Your task to perform on an android device: toggle improve location accuracy Image 0: 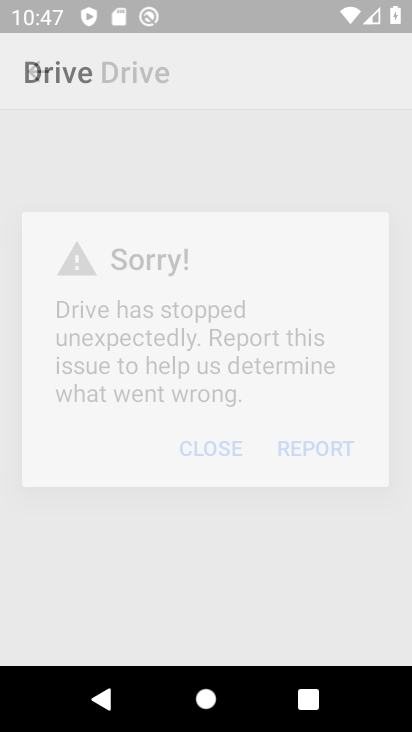
Step 0: drag from (355, 516) to (355, 64)
Your task to perform on an android device: toggle improve location accuracy Image 1: 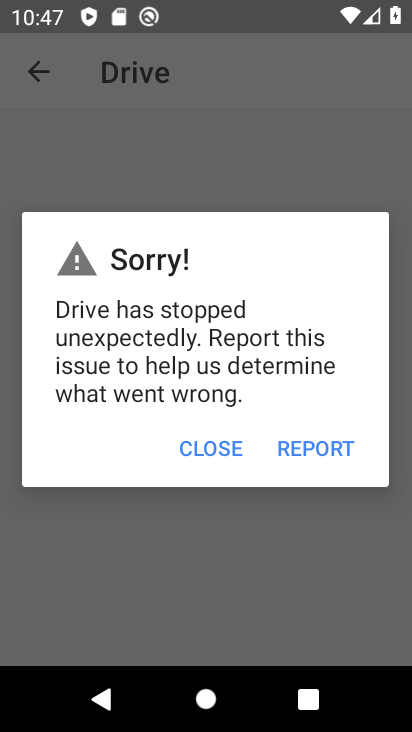
Step 1: press home button
Your task to perform on an android device: toggle improve location accuracy Image 2: 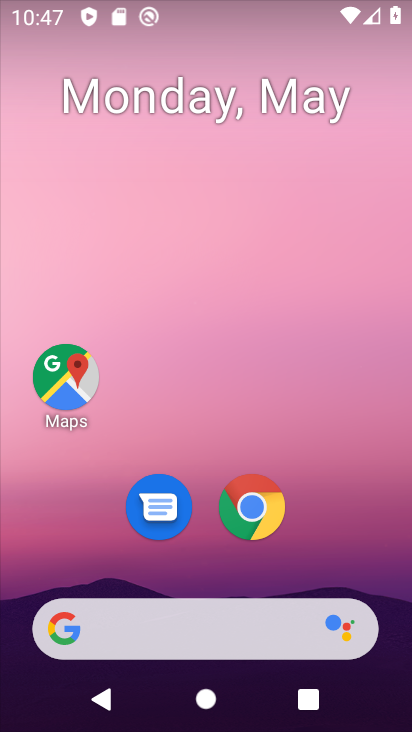
Step 2: drag from (330, 552) to (305, 110)
Your task to perform on an android device: toggle improve location accuracy Image 3: 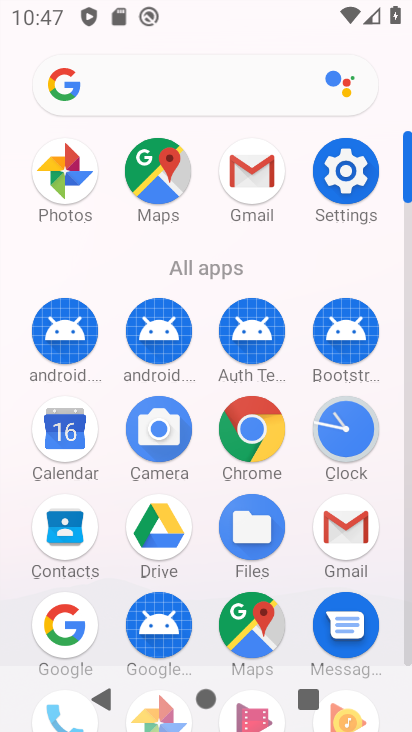
Step 3: click (356, 185)
Your task to perform on an android device: toggle improve location accuracy Image 4: 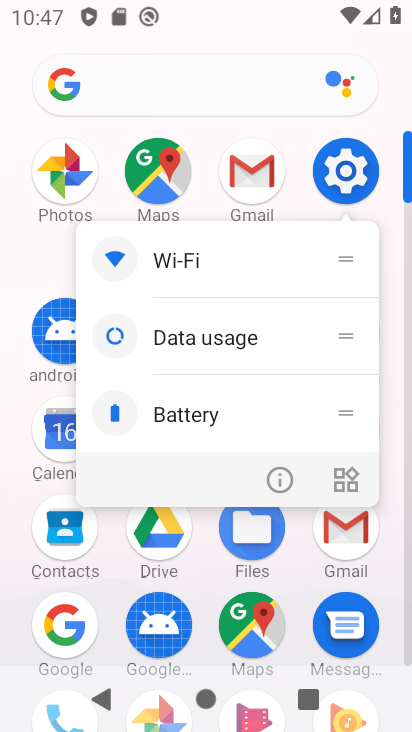
Step 4: click (336, 183)
Your task to perform on an android device: toggle improve location accuracy Image 5: 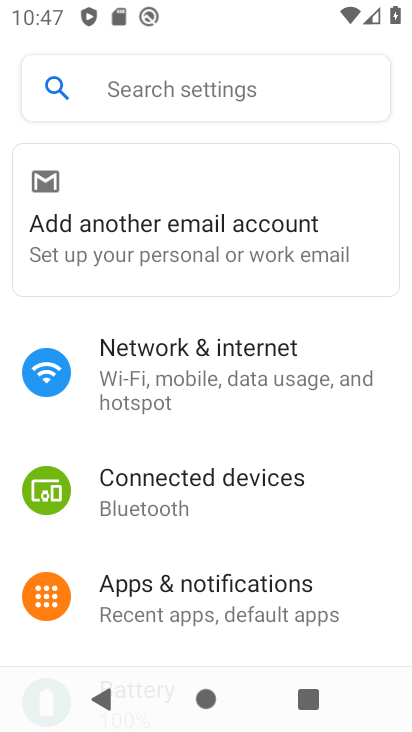
Step 5: drag from (268, 588) to (286, 294)
Your task to perform on an android device: toggle improve location accuracy Image 6: 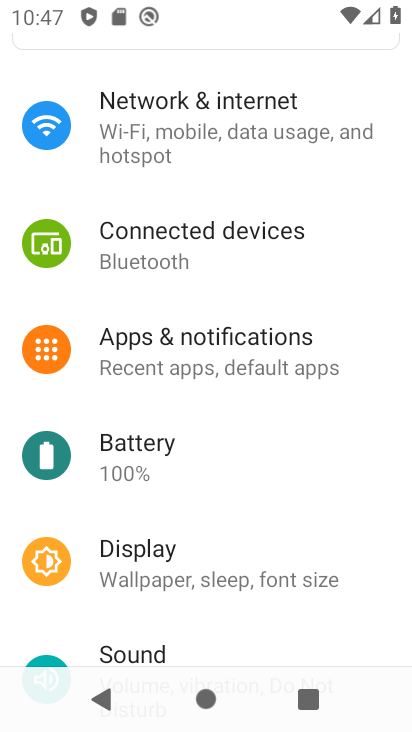
Step 6: drag from (286, 574) to (317, 233)
Your task to perform on an android device: toggle improve location accuracy Image 7: 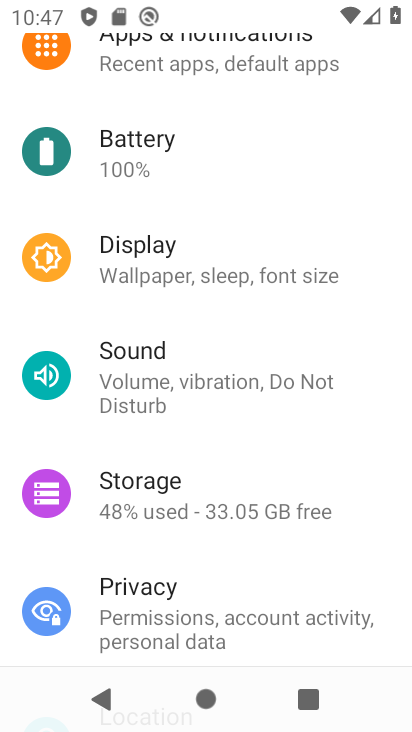
Step 7: drag from (289, 593) to (284, 253)
Your task to perform on an android device: toggle improve location accuracy Image 8: 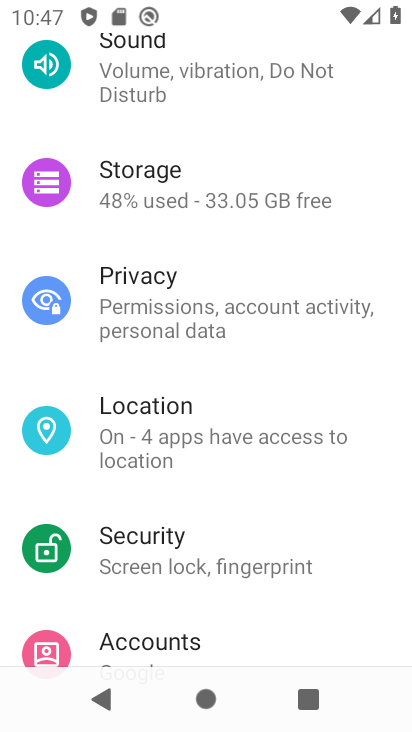
Step 8: click (230, 426)
Your task to perform on an android device: toggle improve location accuracy Image 9: 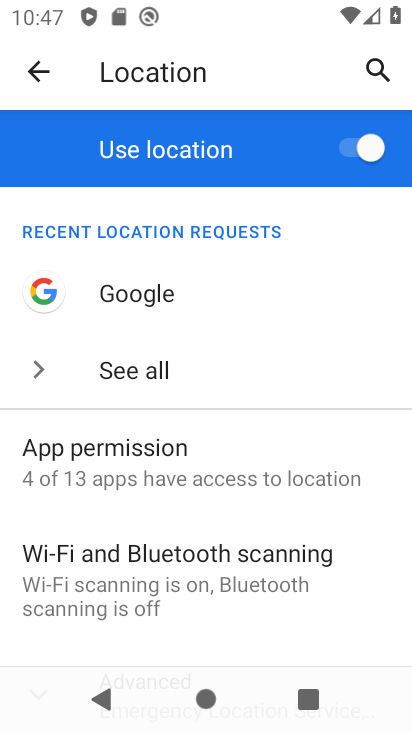
Step 9: drag from (239, 577) to (306, 271)
Your task to perform on an android device: toggle improve location accuracy Image 10: 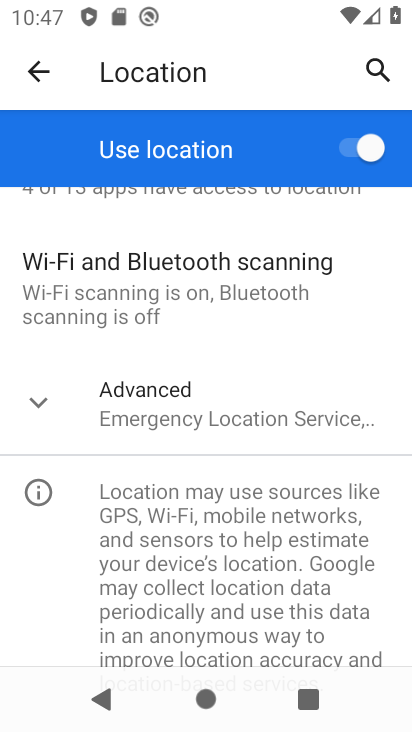
Step 10: click (40, 408)
Your task to perform on an android device: toggle improve location accuracy Image 11: 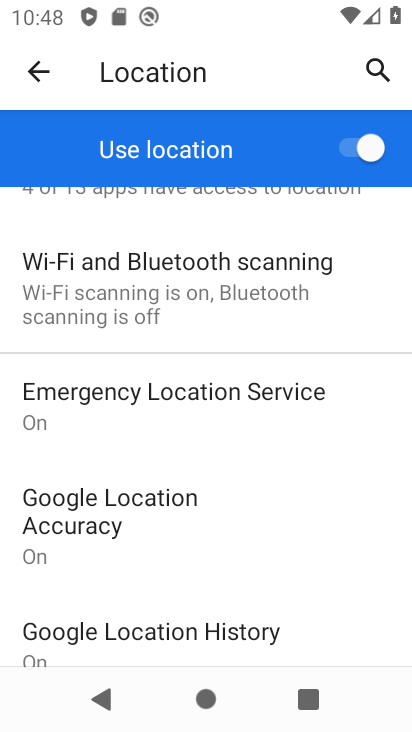
Step 11: click (149, 529)
Your task to perform on an android device: toggle improve location accuracy Image 12: 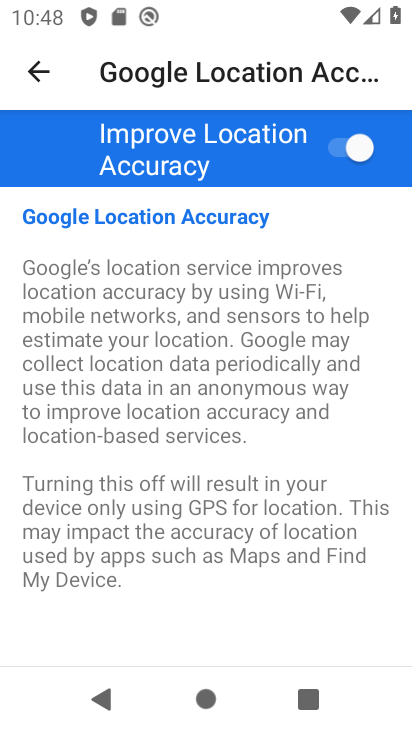
Step 12: task complete